Your task to perform on an android device: Open Google Chrome and open the bookmarks view Image 0: 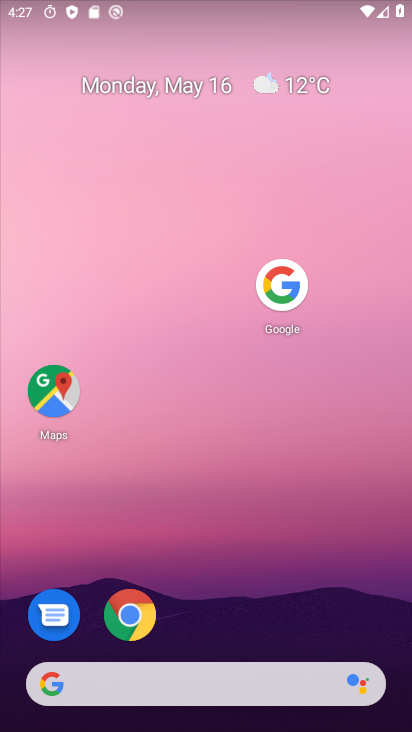
Step 0: click (127, 602)
Your task to perform on an android device: Open Google Chrome and open the bookmarks view Image 1: 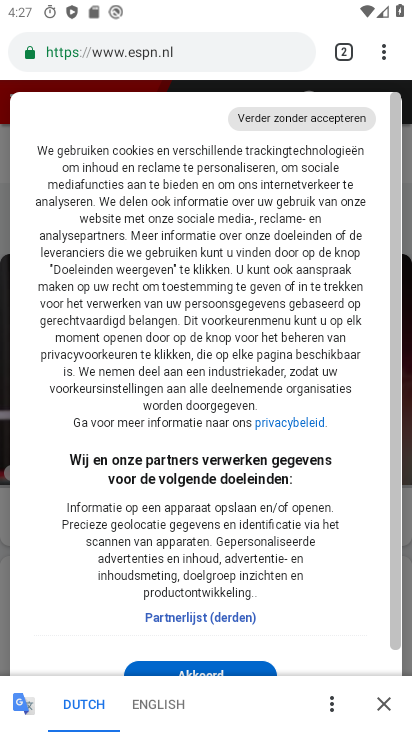
Step 1: click (380, 57)
Your task to perform on an android device: Open Google Chrome and open the bookmarks view Image 2: 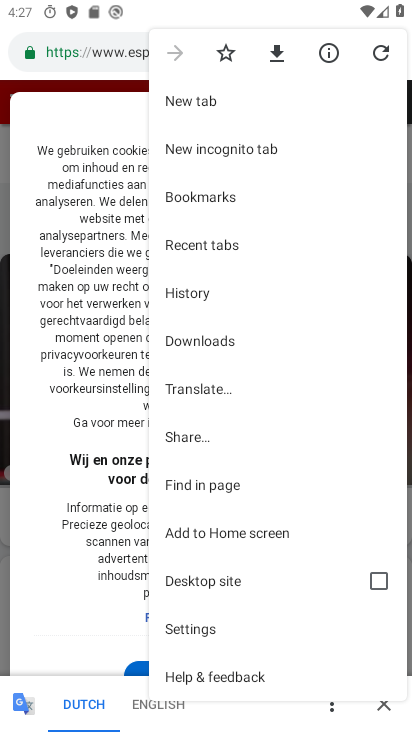
Step 2: click (193, 193)
Your task to perform on an android device: Open Google Chrome and open the bookmarks view Image 3: 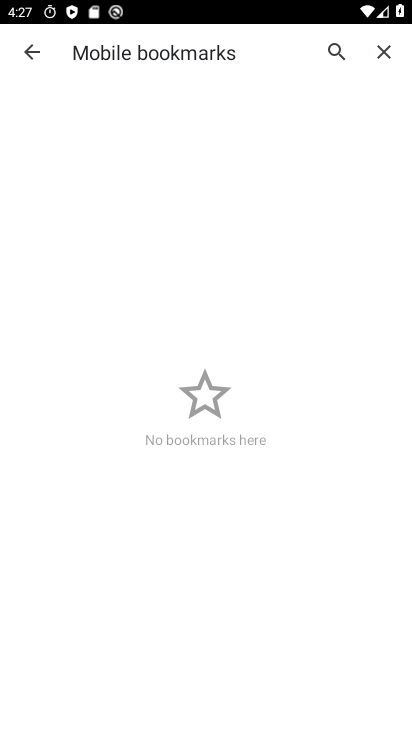
Step 3: task complete